Your task to perform on an android device: Open sound settings Image 0: 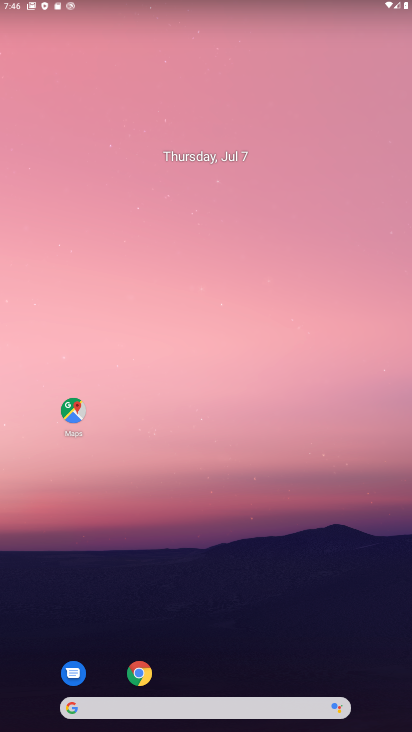
Step 0: drag from (231, 673) to (301, 175)
Your task to perform on an android device: Open sound settings Image 1: 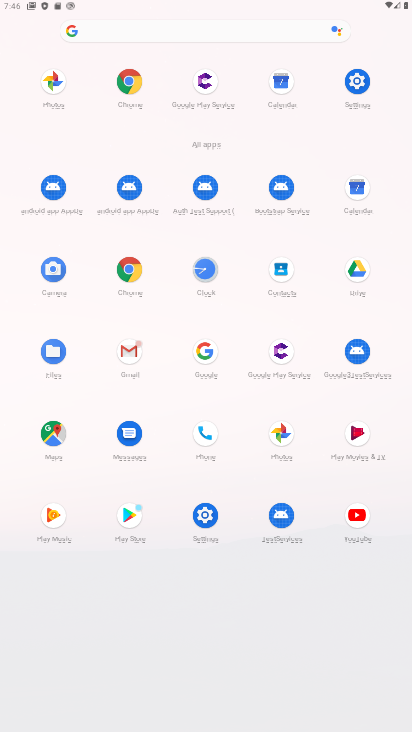
Step 1: click (211, 520)
Your task to perform on an android device: Open sound settings Image 2: 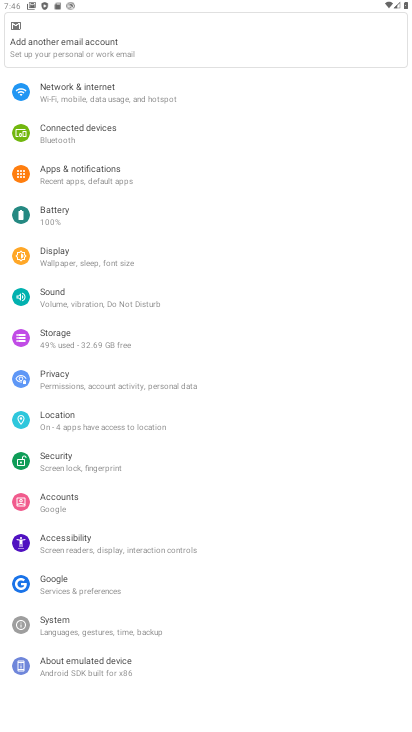
Step 2: click (74, 290)
Your task to perform on an android device: Open sound settings Image 3: 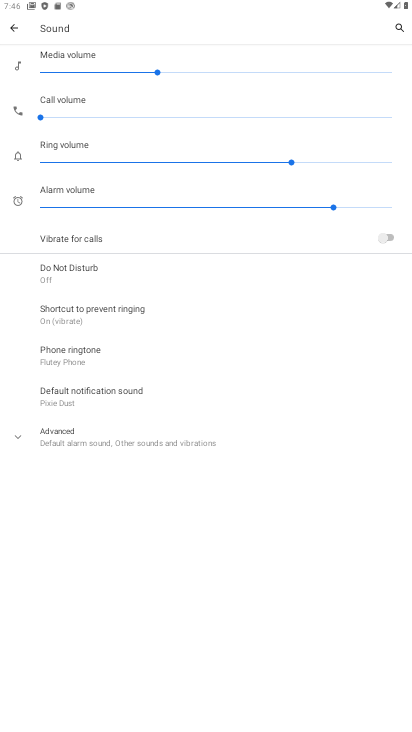
Step 3: task complete